Your task to perform on an android device: check google app version Image 0: 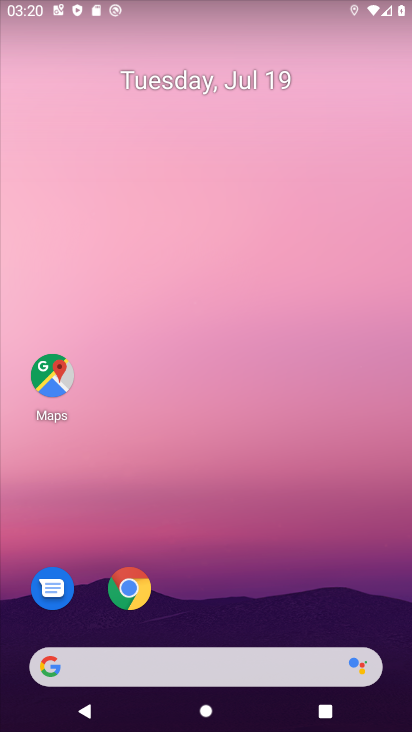
Step 0: click (184, 665)
Your task to perform on an android device: check google app version Image 1: 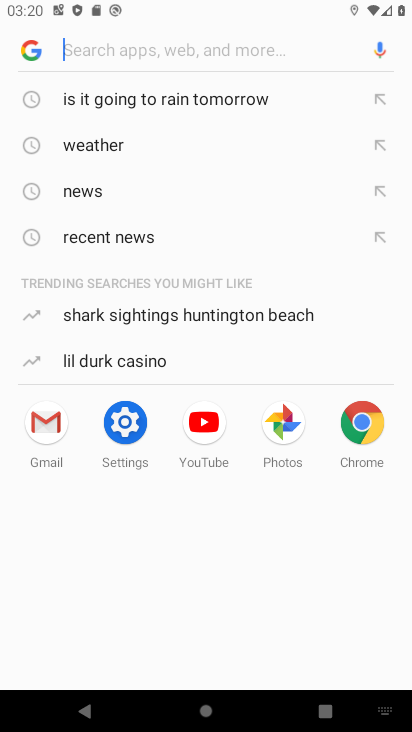
Step 1: click (29, 44)
Your task to perform on an android device: check google app version Image 2: 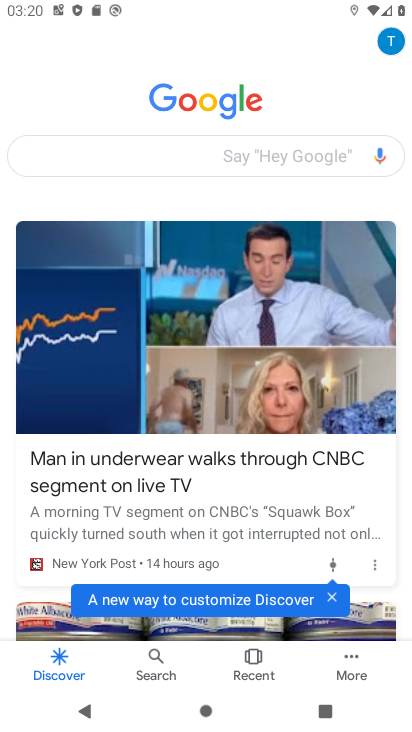
Step 2: click (353, 655)
Your task to perform on an android device: check google app version Image 3: 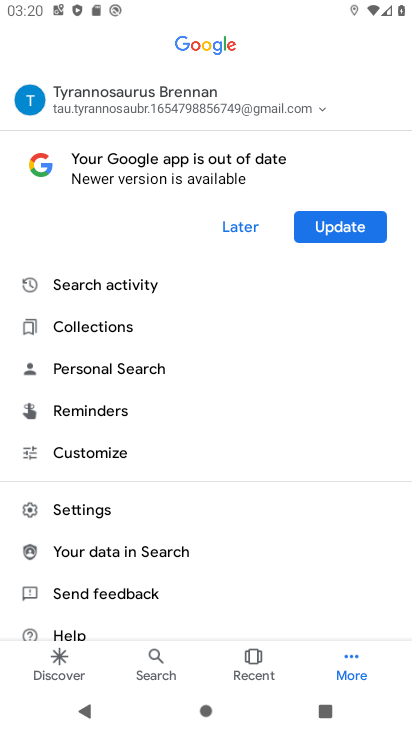
Step 3: click (84, 503)
Your task to perform on an android device: check google app version Image 4: 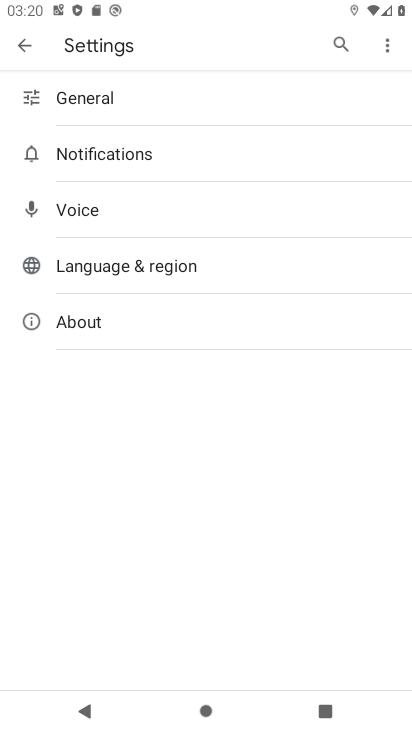
Step 4: click (68, 317)
Your task to perform on an android device: check google app version Image 5: 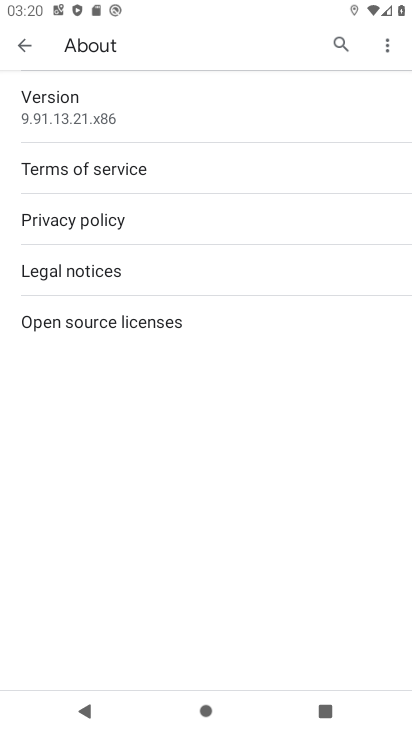
Step 5: task complete